Your task to perform on an android device: Open Android settings Image 0: 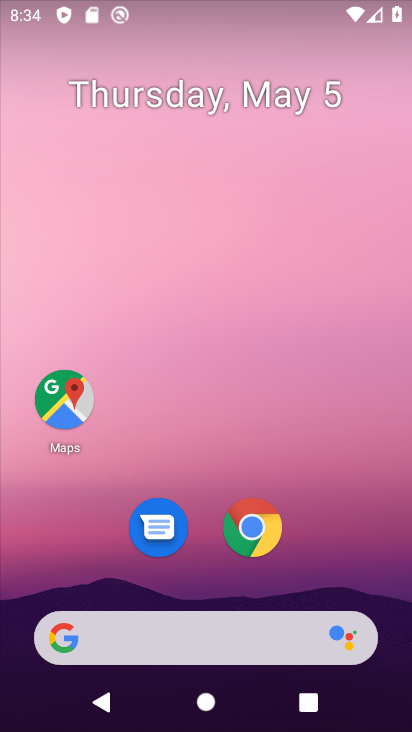
Step 0: drag from (321, 577) to (238, 244)
Your task to perform on an android device: Open Android settings Image 1: 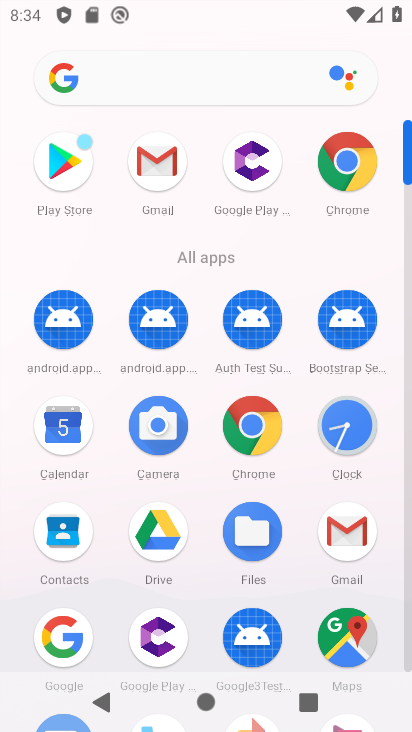
Step 1: drag from (346, 563) to (185, 86)
Your task to perform on an android device: Open Android settings Image 2: 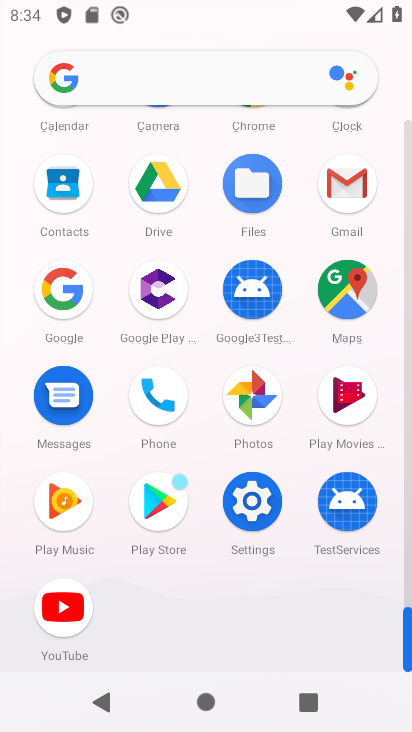
Step 2: click (243, 503)
Your task to perform on an android device: Open Android settings Image 3: 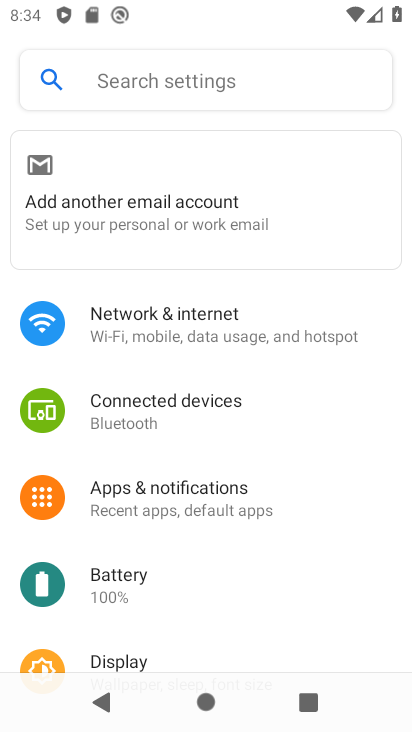
Step 3: drag from (152, 209) to (194, 146)
Your task to perform on an android device: Open Android settings Image 4: 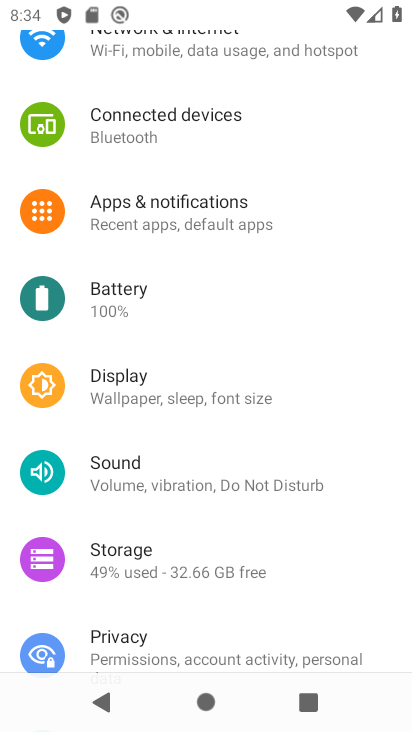
Step 4: drag from (213, 461) to (209, 212)
Your task to perform on an android device: Open Android settings Image 5: 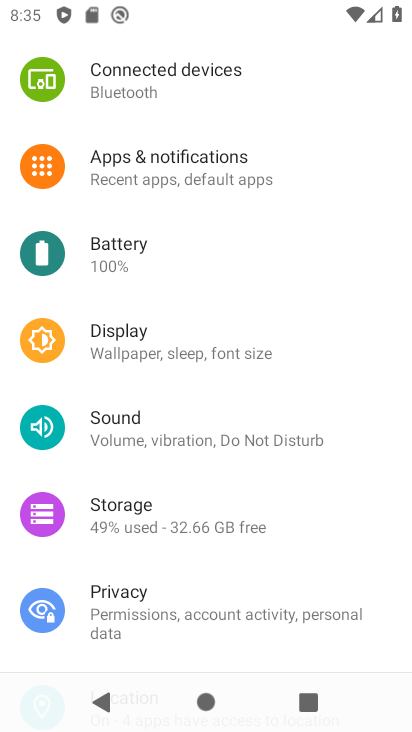
Step 5: drag from (158, 368) to (166, 46)
Your task to perform on an android device: Open Android settings Image 6: 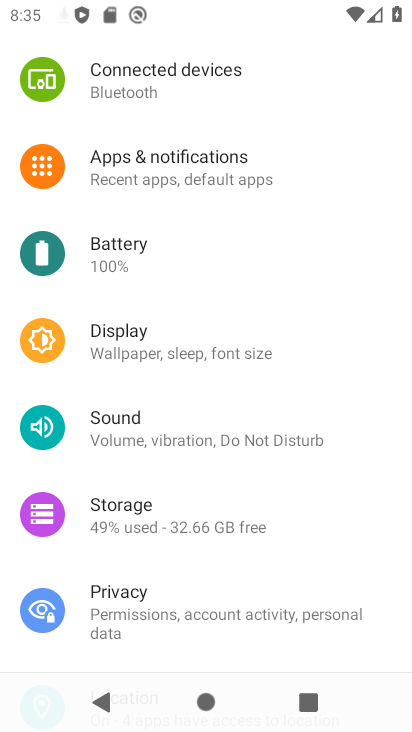
Step 6: drag from (187, 566) to (218, 113)
Your task to perform on an android device: Open Android settings Image 7: 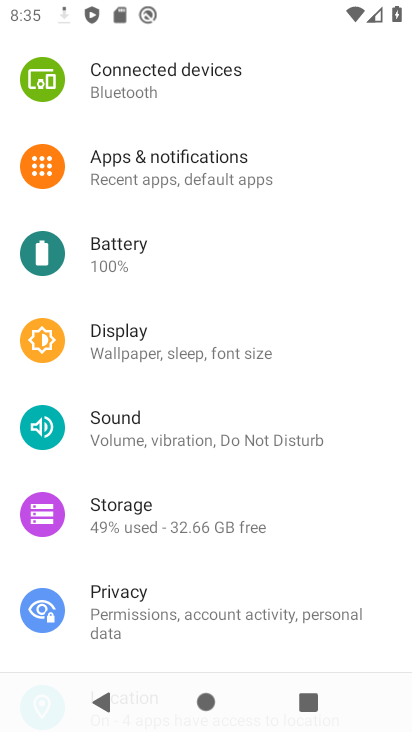
Step 7: drag from (191, 542) to (147, 0)
Your task to perform on an android device: Open Android settings Image 8: 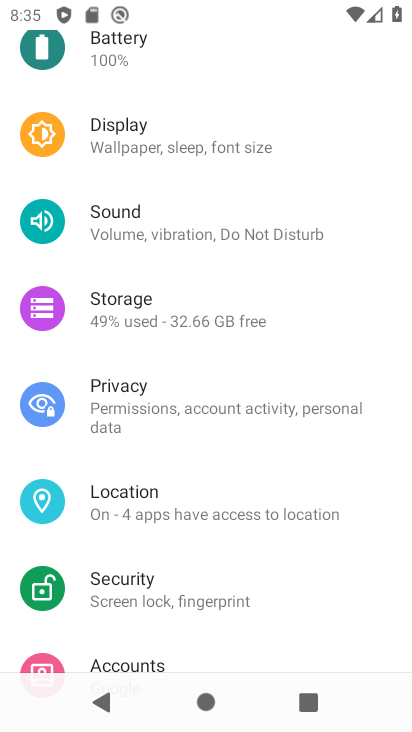
Step 8: drag from (172, 467) to (197, 143)
Your task to perform on an android device: Open Android settings Image 9: 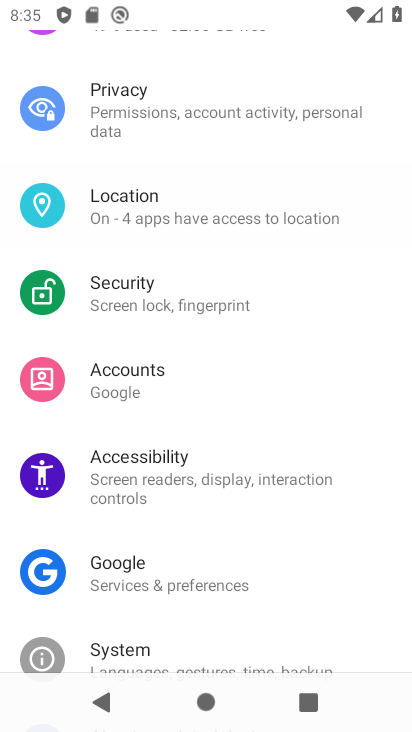
Step 9: drag from (165, 609) to (169, 175)
Your task to perform on an android device: Open Android settings Image 10: 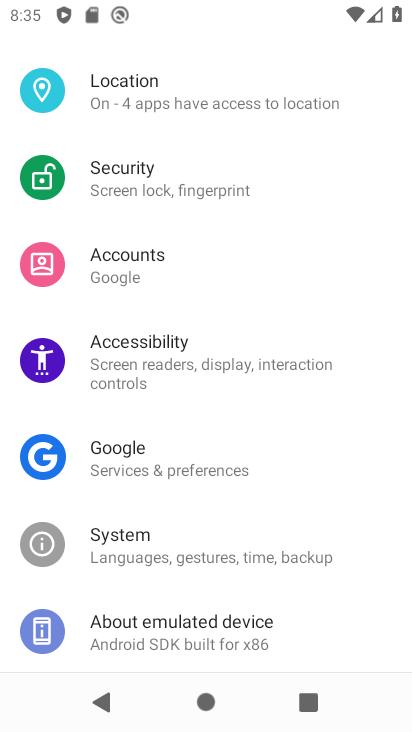
Step 10: drag from (223, 506) to (236, 154)
Your task to perform on an android device: Open Android settings Image 11: 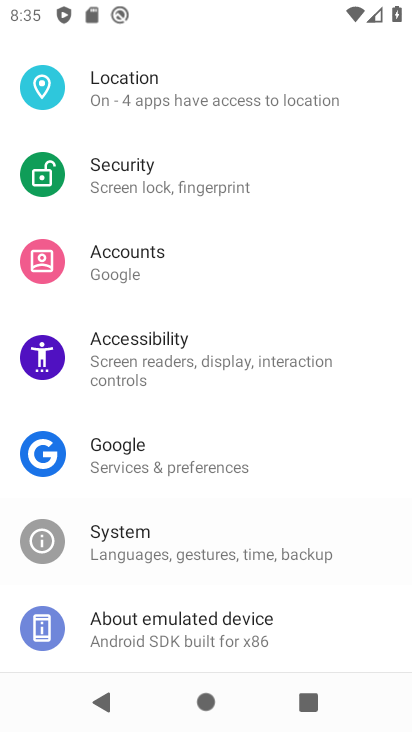
Step 11: drag from (252, 504) to (270, 19)
Your task to perform on an android device: Open Android settings Image 12: 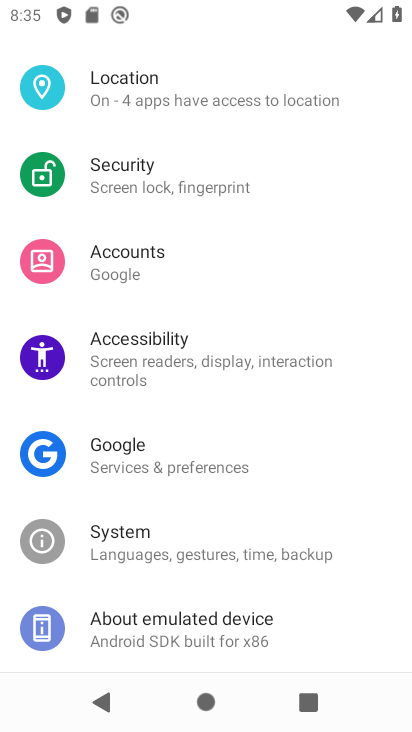
Step 12: drag from (240, 501) to (209, 153)
Your task to perform on an android device: Open Android settings Image 13: 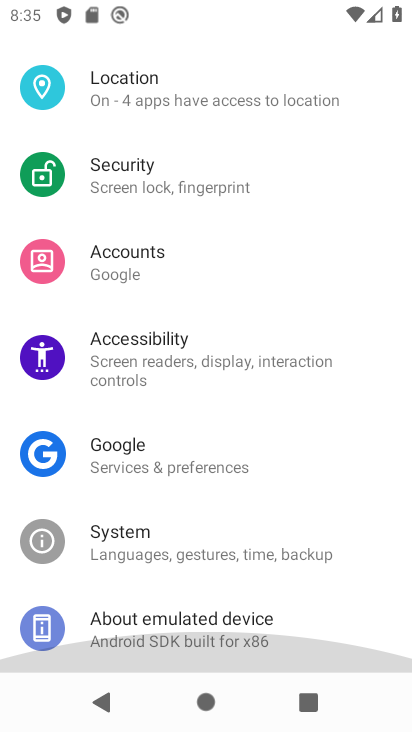
Step 13: drag from (206, 539) to (200, 142)
Your task to perform on an android device: Open Android settings Image 14: 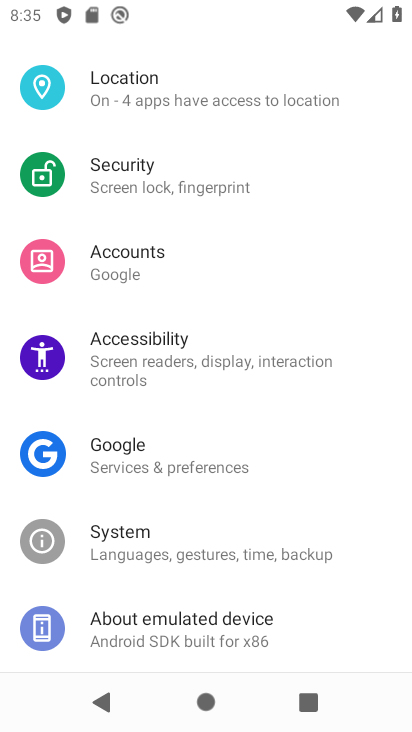
Step 14: click (189, 627)
Your task to perform on an android device: Open Android settings Image 15: 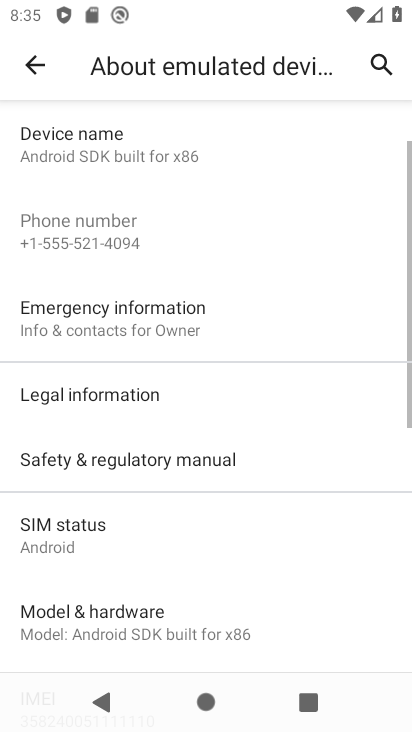
Step 15: click (192, 637)
Your task to perform on an android device: Open Android settings Image 16: 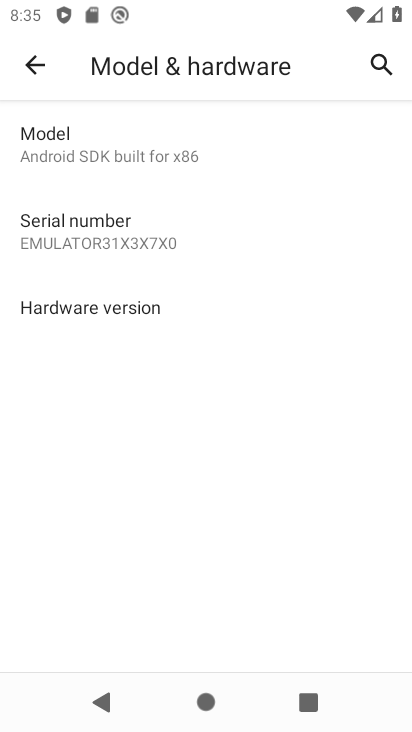
Step 16: click (30, 63)
Your task to perform on an android device: Open Android settings Image 17: 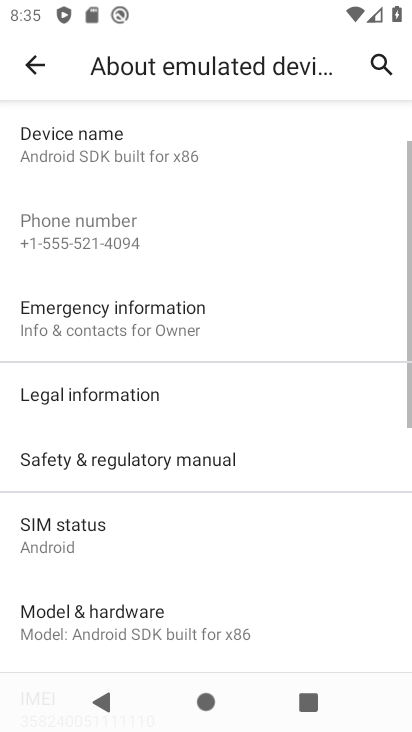
Step 17: drag from (221, 524) to (203, 34)
Your task to perform on an android device: Open Android settings Image 18: 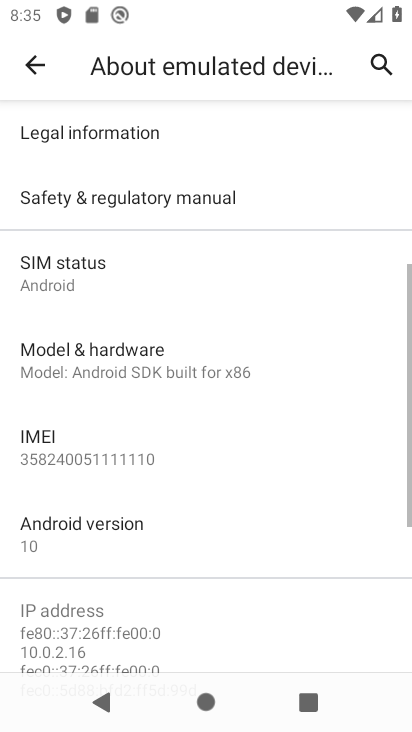
Step 18: drag from (148, 440) to (115, 123)
Your task to perform on an android device: Open Android settings Image 19: 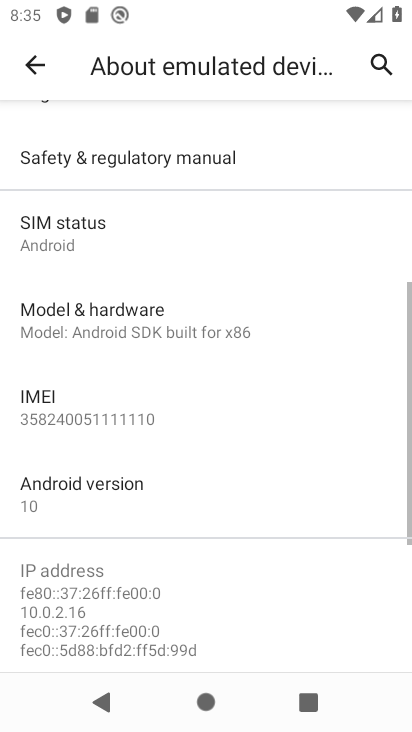
Step 19: click (23, 69)
Your task to perform on an android device: Open Android settings Image 20: 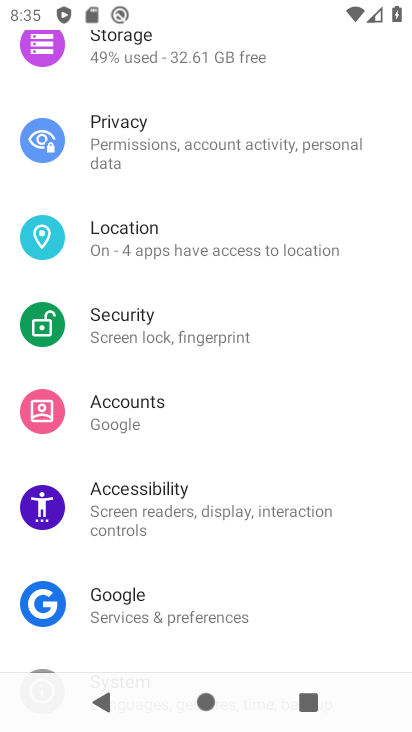
Step 20: task complete